Your task to perform on an android device: change the clock display to analog Image 0: 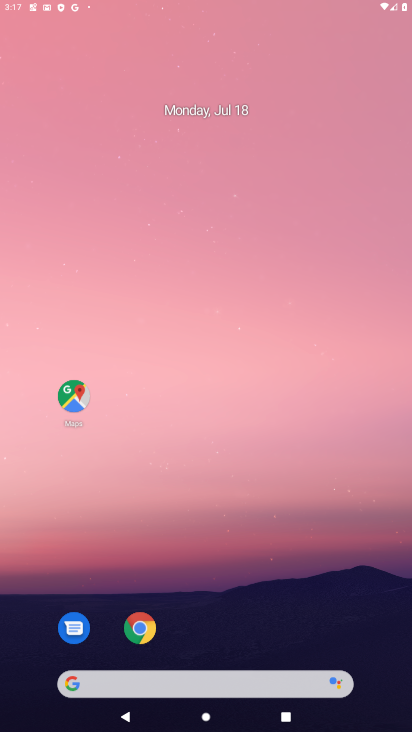
Step 0: drag from (236, 668) to (236, 375)
Your task to perform on an android device: change the clock display to analog Image 1: 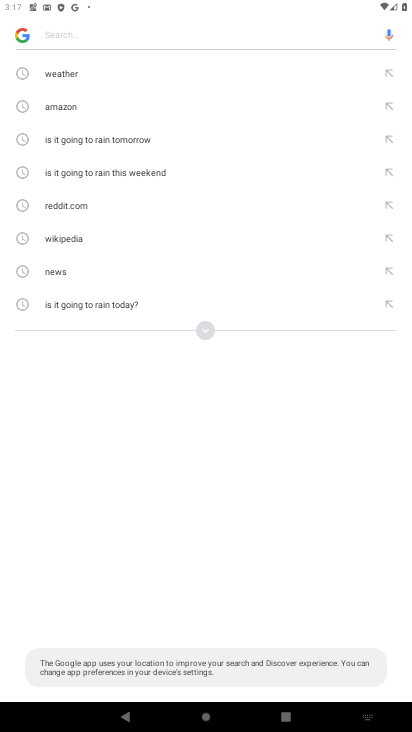
Step 1: press home button
Your task to perform on an android device: change the clock display to analog Image 2: 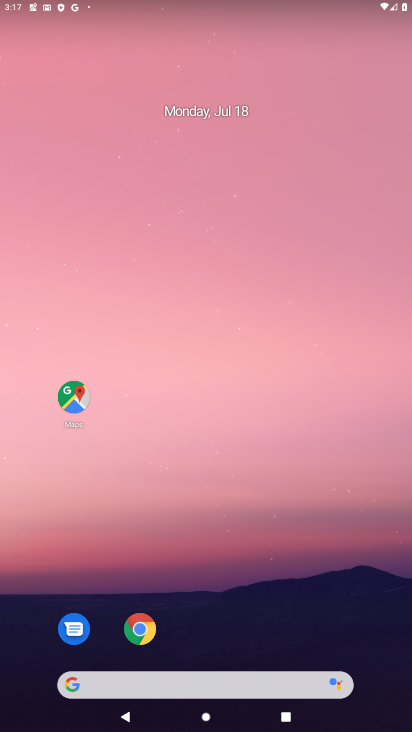
Step 2: drag from (198, 625) to (198, 259)
Your task to perform on an android device: change the clock display to analog Image 3: 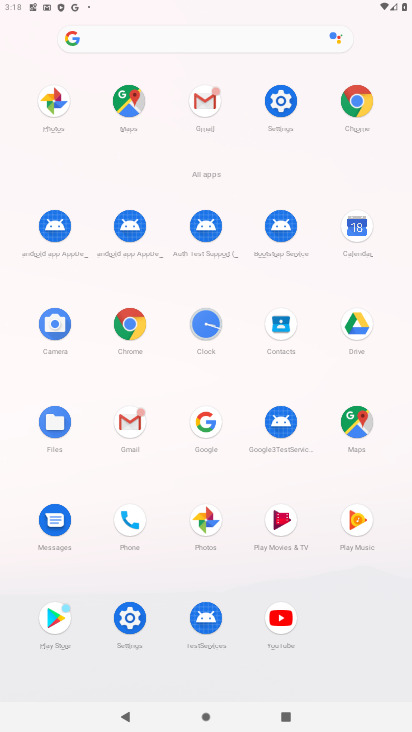
Step 3: click (204, 312)
Your task to perform on an android device: change the clock display to analog Image 4: 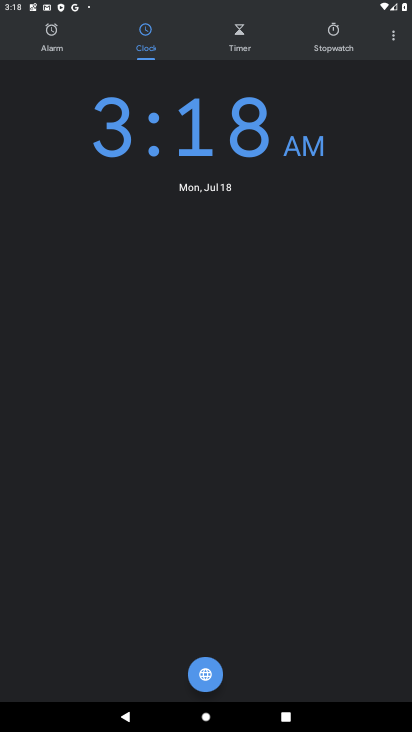
Step 4: click (395, 44)
Your task to perform on an android device: change the clock display to analog Image 5: 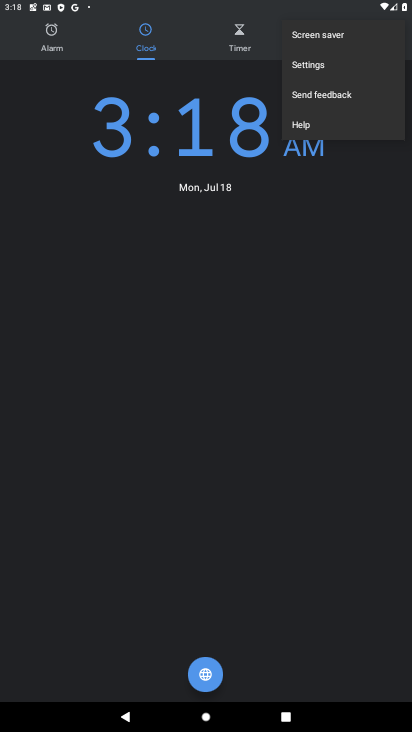
Step 5: click (296, 74)
Your task to perform on an android device: change the clock display to analog Image 6: 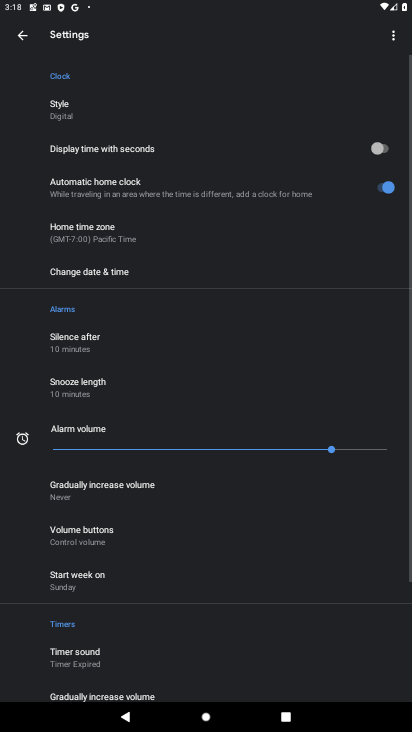
Step 6: click (81, 125)
Your task to perform on an android device: change the clock display to analog Image 7: 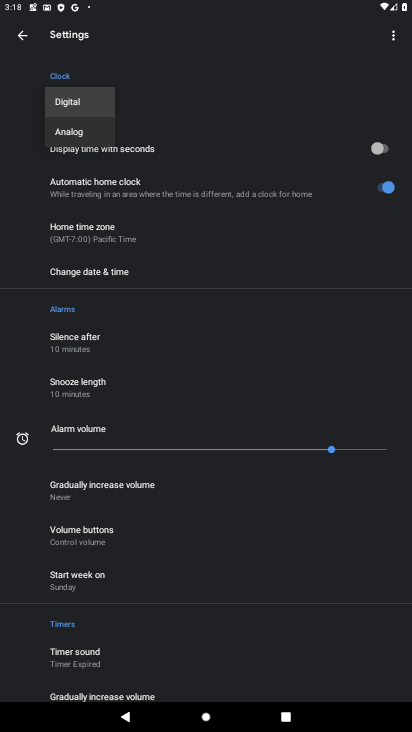
Step 7: click (86, 134)
Your task to perform on an android device: change the clock display to analog Image 8: 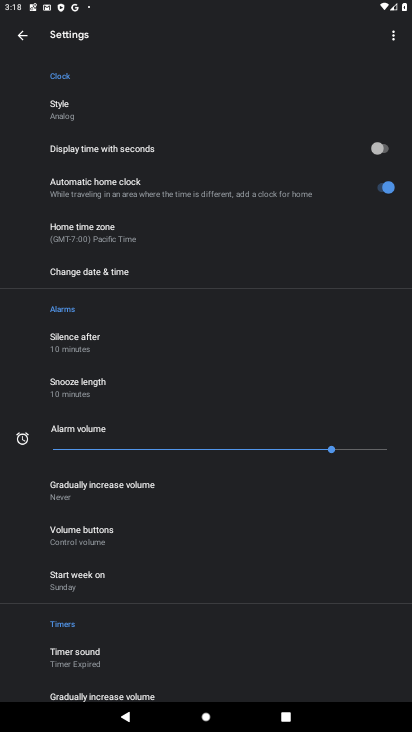
Step 8: task complete